Your task to perform on an android device: Clear the cart on amazon. Add logitech g pro to the cart on amazon, then select checkout. Image 0: 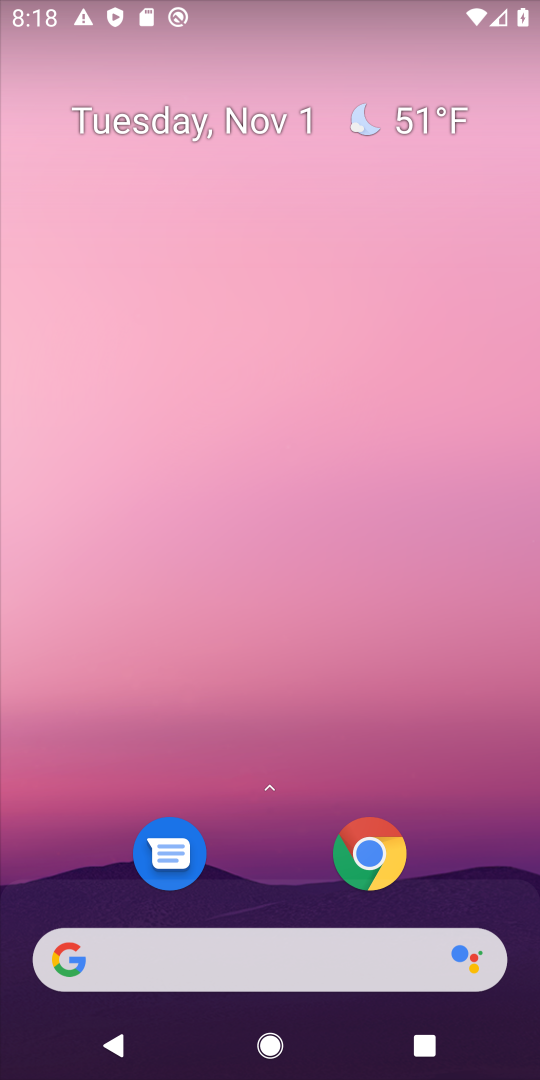
Step 0: click (285, 1000)
Your task to perform on an android device: Clear the cart on amazon. Add logitech g pro to the cart on amazon, then select checkout. Image 1: 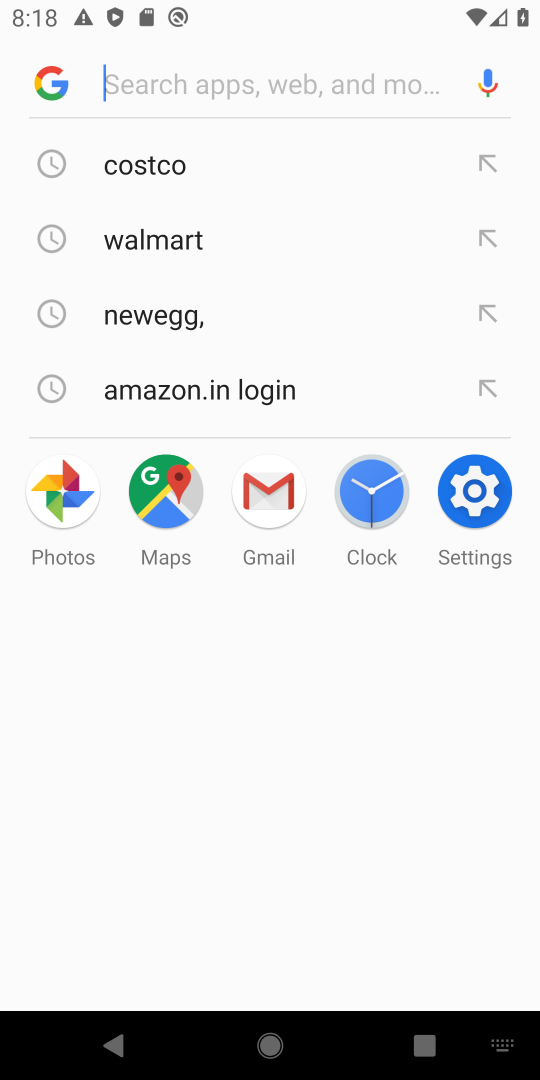
Step 1: type "amazon"
Your task to perform on an android device: Clear the cart on amazon. Add logitech g pro to the cart on amazon, then select checkout. Image 2: 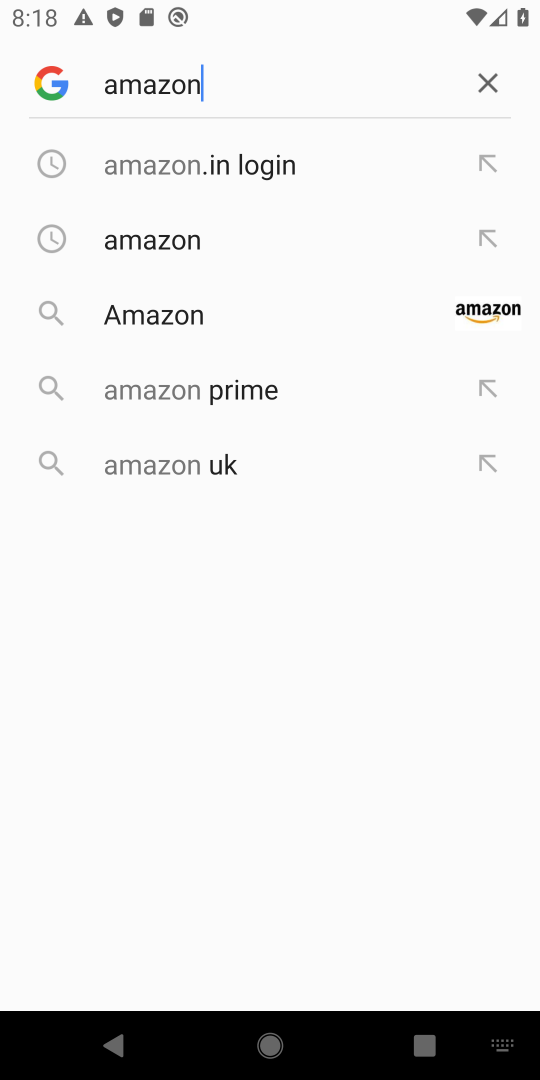
Step 2: click (111, 234)
Your task to perform on an android device: Clear the cart on amazon. Add logitech g pro to the cart on amazon, then select checkout. Image 3: 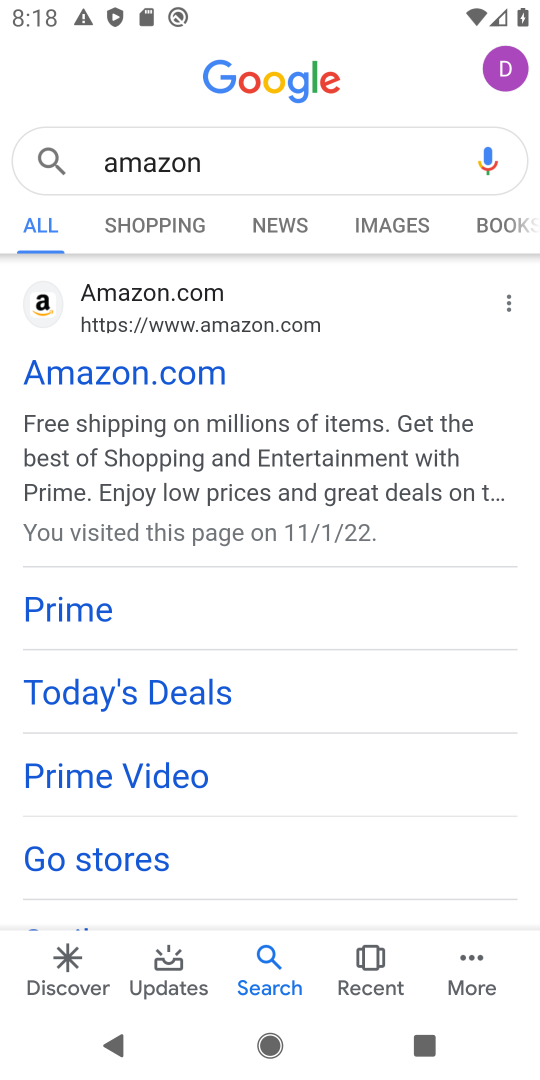
Step 3: click (173, 371)
Your task to perform on an android device: Clear the cart on amazon. Add logitech g pro to the cart on amazon, then select checkout. Image 4: 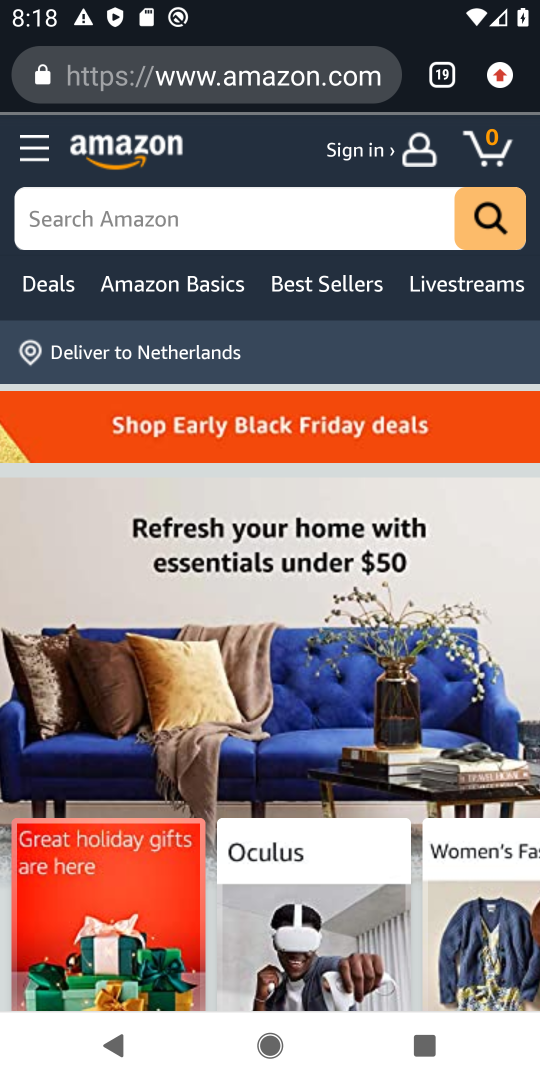
Step 4: click (241, 229)
Your task to perform on an android device: Clear the cart on amazon. Add logitech g pro to the cart on amazon, then select checkout. Image 5: 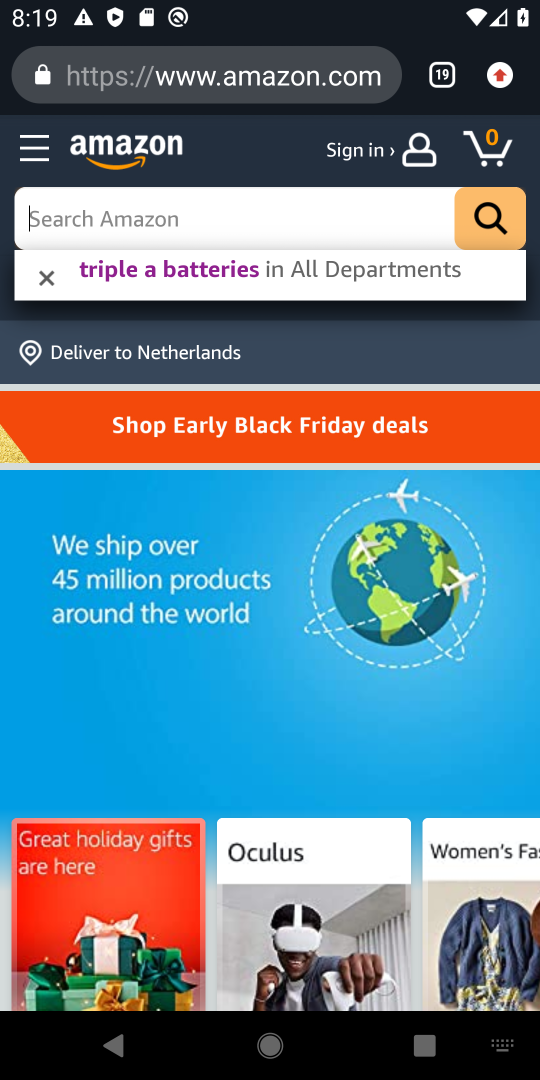
Step 5: type "logitech"
Your task to perform on an android device: Clear the cart on amazon. Add logitech g pro to the cart on amazon, then select checkout. Image 6: 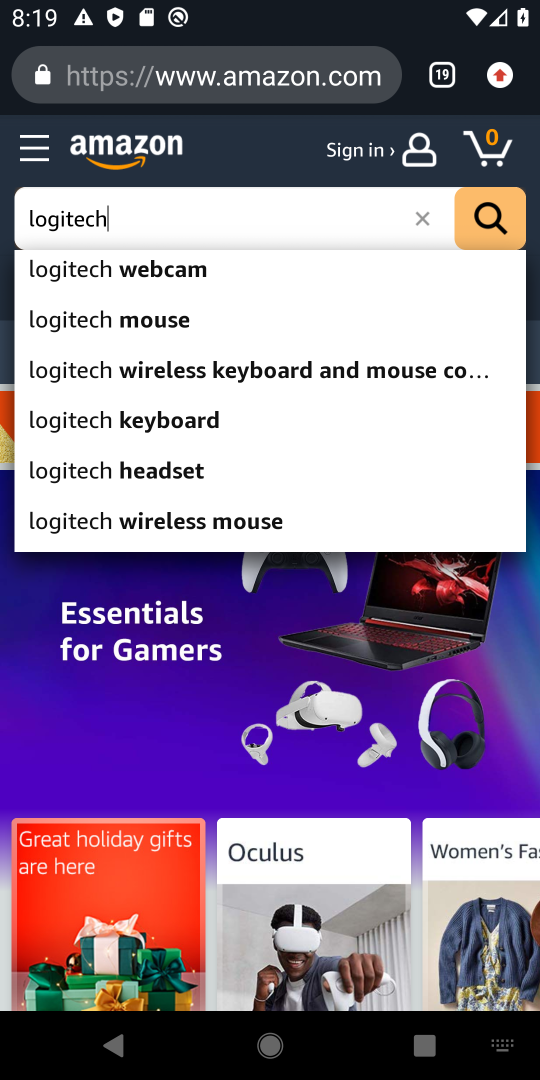
Step 6: click (144, 367)
Your task to perform on an android device: Clear the cart on amazon. Add logitech g pro to the cart on amazon, then select checkout. Image 7: 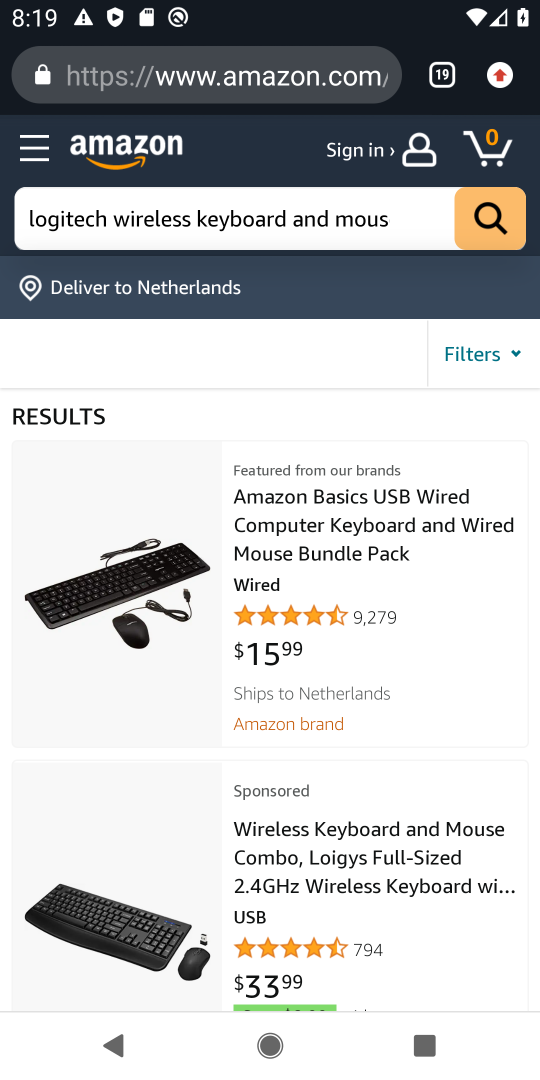
Step 7: click (321, 563)
Your task to perform on an android device: Clear the cart on amazon. Add logitech g pro to the cart on amazon, then select checkout. Image 8: 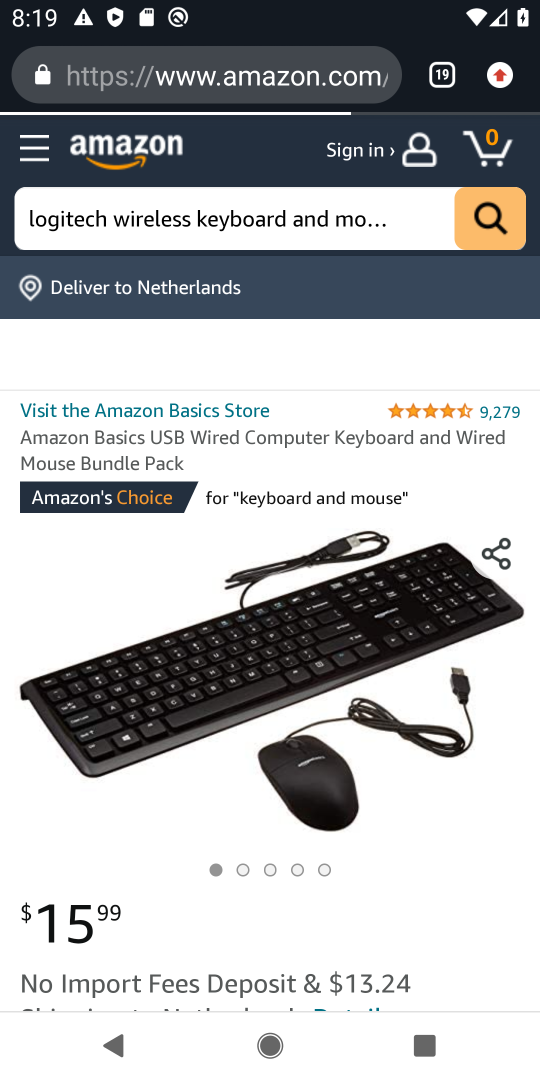
Step 8: drag from (270, 839) to (262, 423)
Your task to perform on an android device: Clear the cart on amazon. Add logitech g pro to the cart on amazon, then select checkout. Image 9: 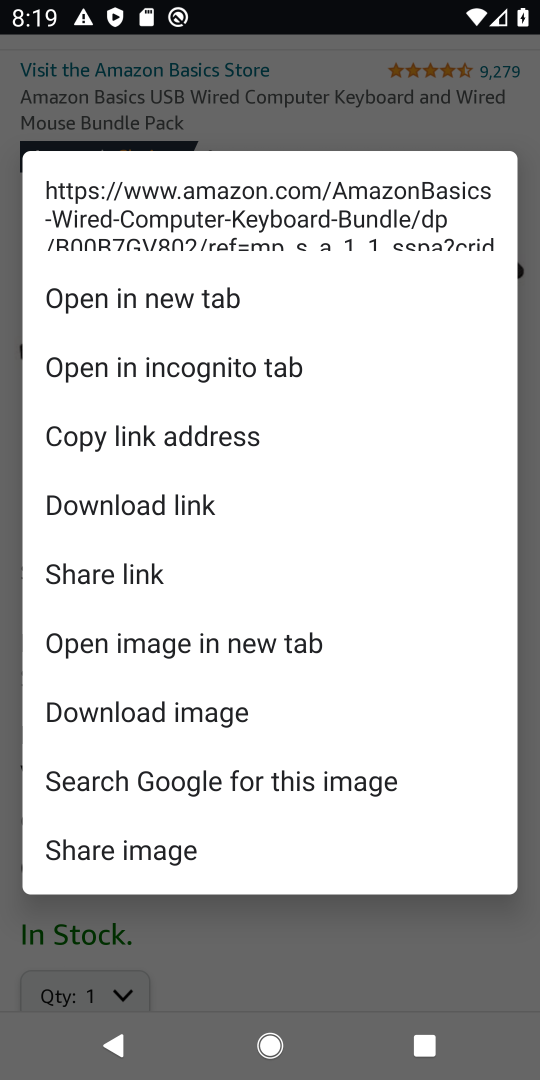
Step 9: click (208, 917)
Your task to perform on an android device: Clear the cart on amazon. Add logitech g pro to the cart on amazon, then select checkout. Image 10: 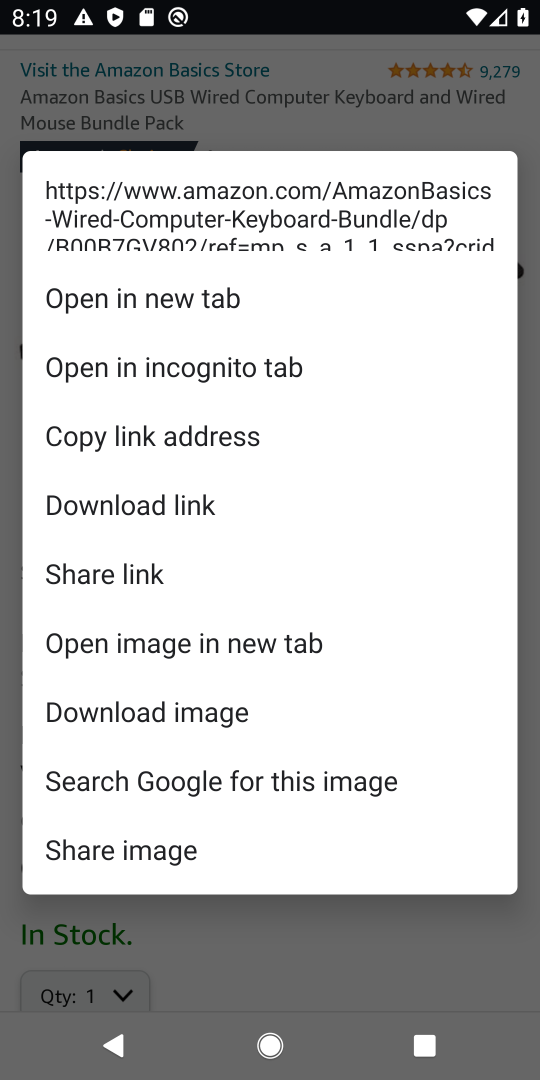
Step 10: drag from (226, 945) to (187, 360)
Your task to perform on an android device: Clear the cart on amazon. Add logitech g pro to the cart on amazon, then select checkout. Image 11: 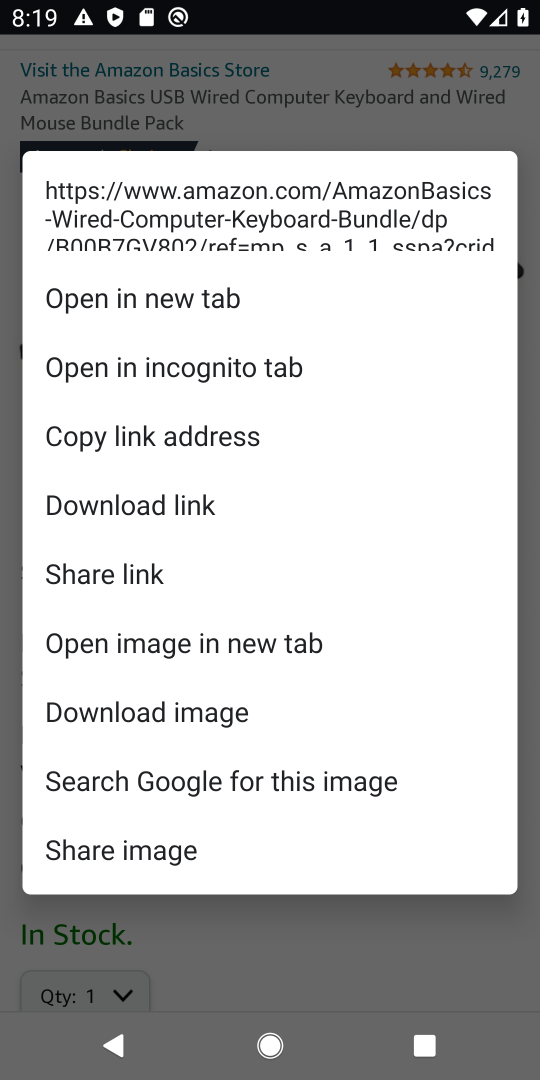
Step 11: click (304, 968)
Your task to perform on an android device: Clear the cart on amazon. Add logitech g pro to the cart on amazon, then select checkout. Image 12: 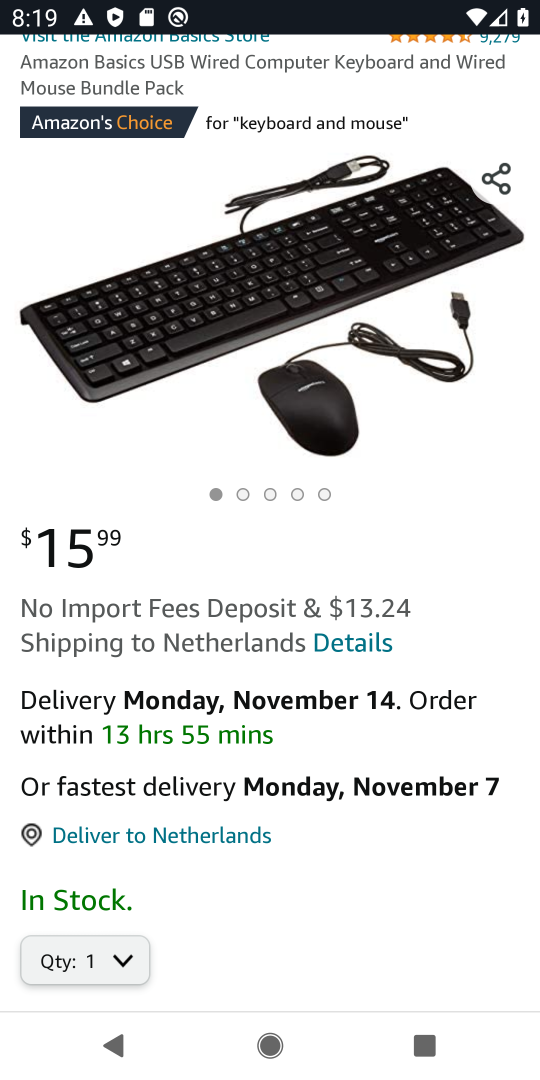
Step 12: drag from (304, 968) to (276, 588)
Your task to perform on an android device: Clear the cart on amazon. Add logitech g pro to the cart on amazon, then select checkout. Image 13: 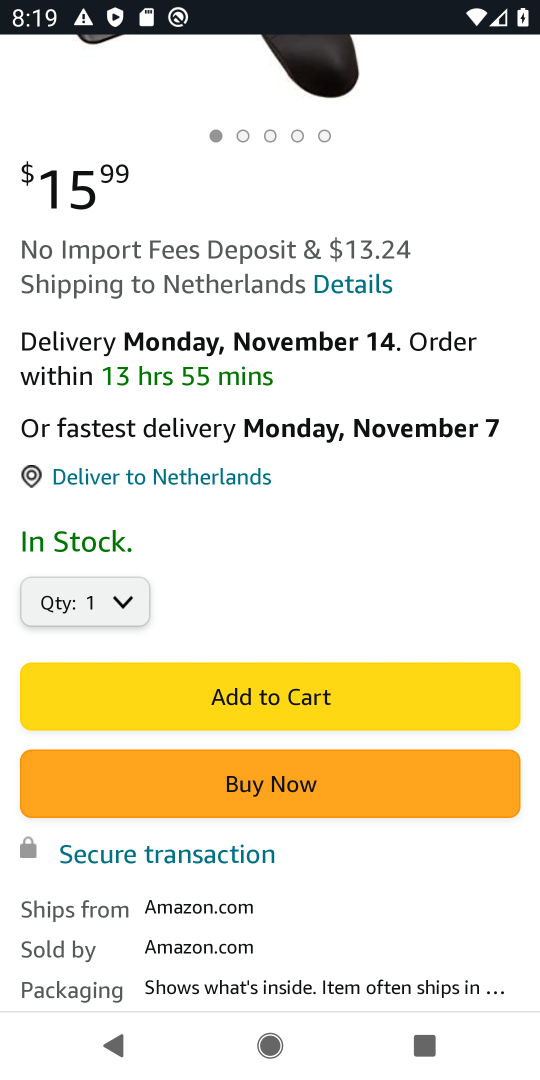
Step 13: click (318, 696)
Your task to perform on an android device: Clear the cart on amazon. Add logitech g pro to the cart on amazon, then select checkout. Image 14: 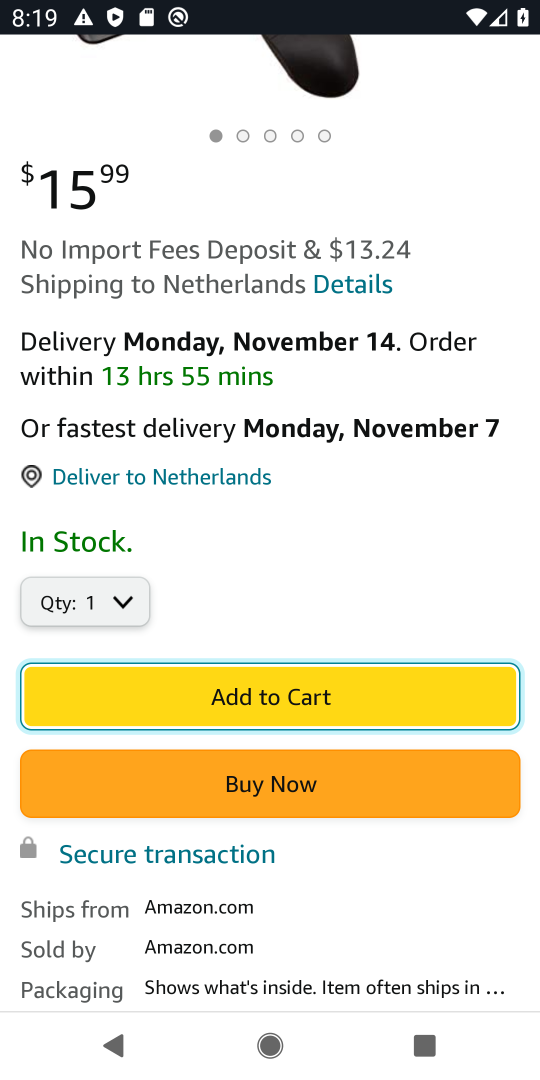
Step 14: task complete